Your task to perform on an android device: move an email to a new category in the gmail app Image 0: 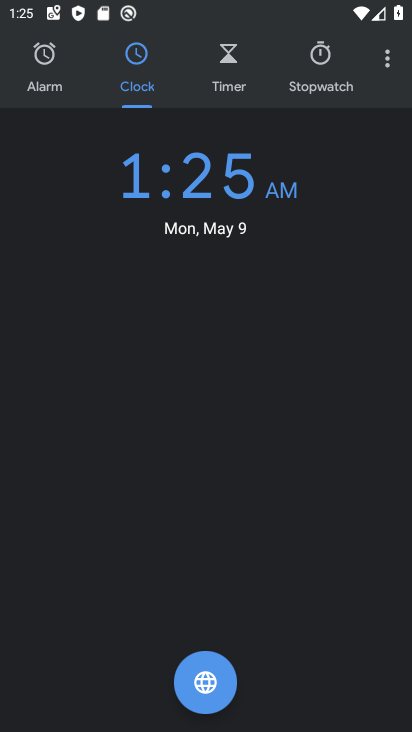
Step 0: press home button
Your task to perform on an android device: move an email to a new category in the gmail app Image 1: 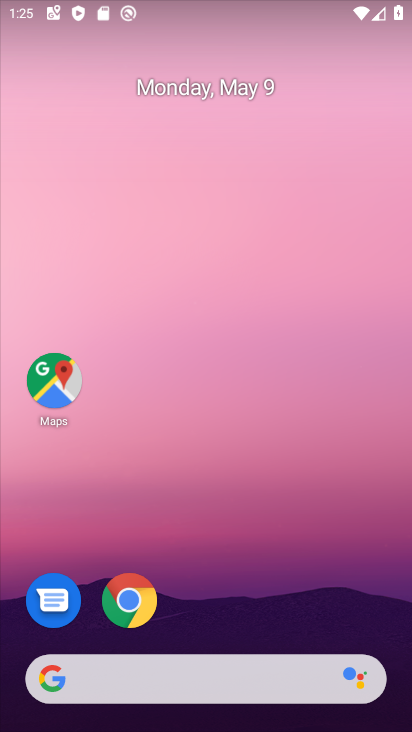
Step 1: drag from (224, 616) to (386, 9)
Your task to perform on an android device: move an email to a new category in the gmail app Image 2: 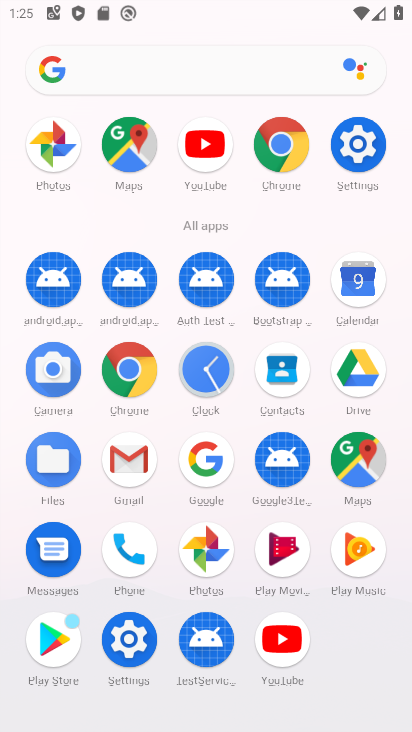
Step 2: click (136, 450)
Your task to perform on an android device: move an email to a new category in the gmail app Image 3: 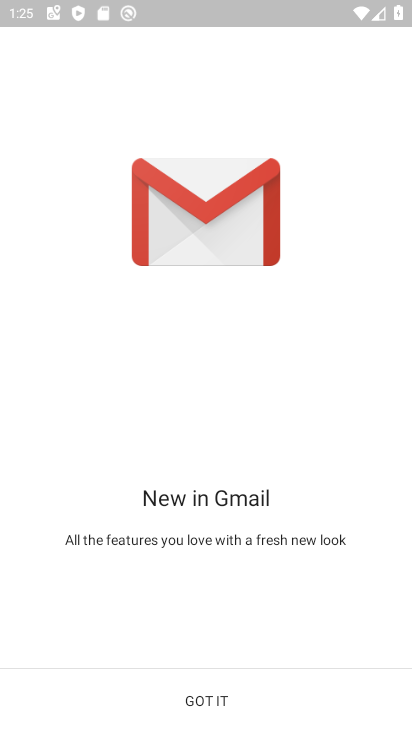
Step 3: click (173, 716)
Your task to perform on an android device: move an email to a new category in the gmail app Image 4: 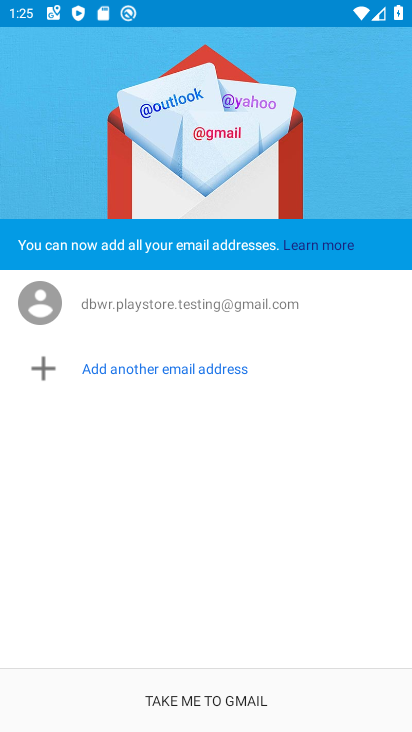
Step 4: click (231, 710)
Your task to perform on an android device: move an email to a new category in the gmail app Image 5: 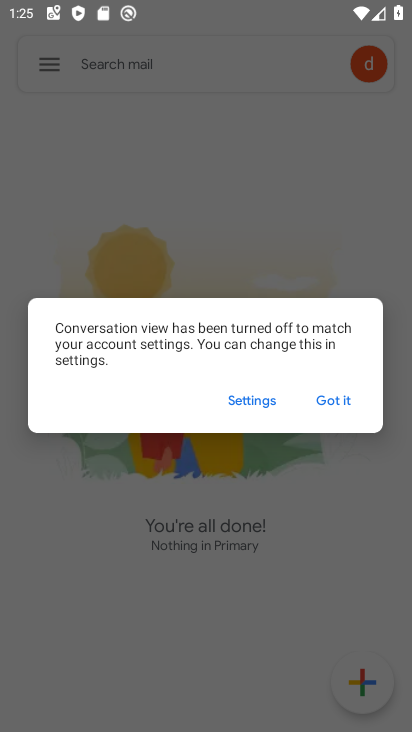
Step 5: click (344, 392)
Your task to perform on an android device: move an email to a new category in the gmail app Image 6: 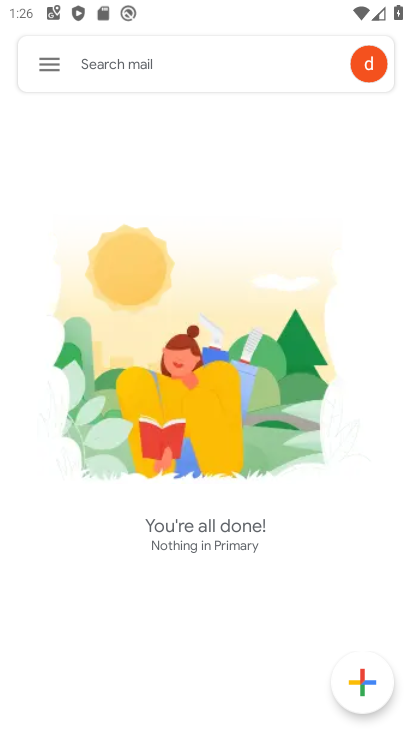
Step 6: task complete